Your task to perform on an android device: check data usage Image 0: 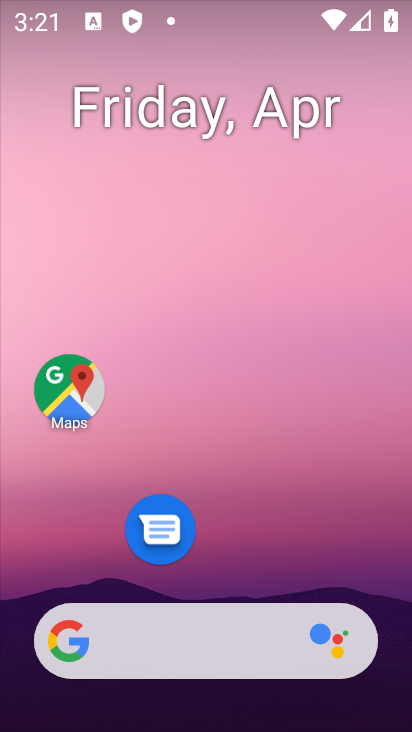
Step 0: drag from (301, 517) to (325, 257)
Your task to perform on an android device: check data usage Image 1: 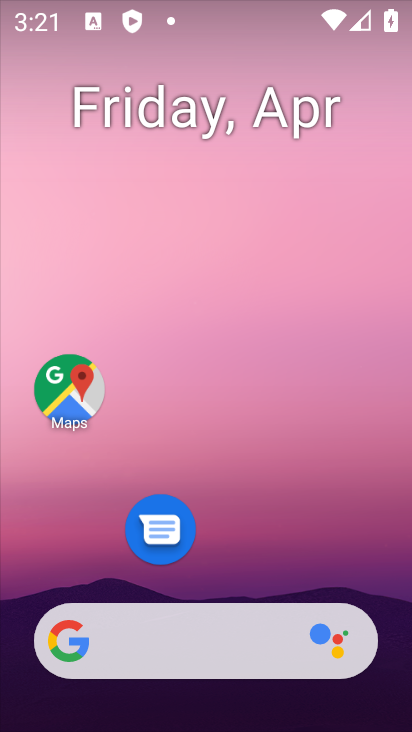
Step 1: drag from (265, 578) to (369, 69)
Your task to perform on an android device: check data usage Image 2: 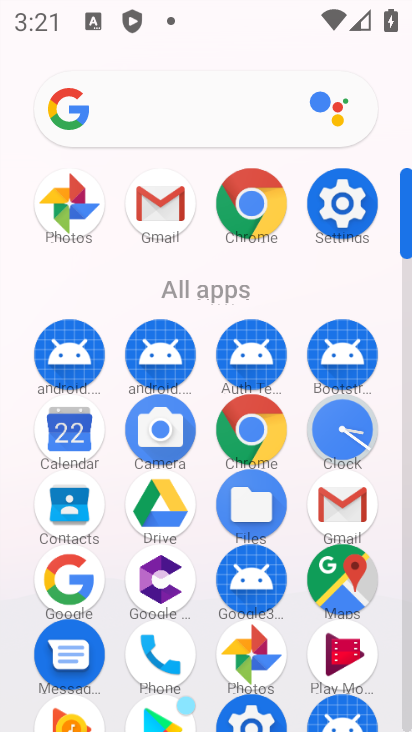
Step 2: click (345, 222)
Your task to perform on an android device: check data usage Image 3: 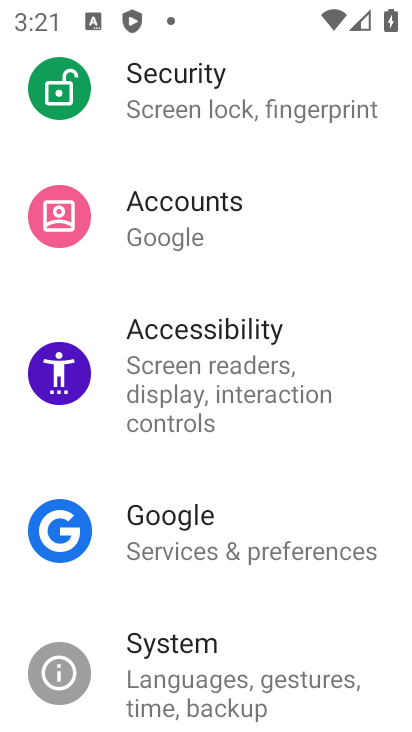
Step 3: drag from (264, 293) to (188, 670)
Your task to perform on an android device: check data usage Image 4: 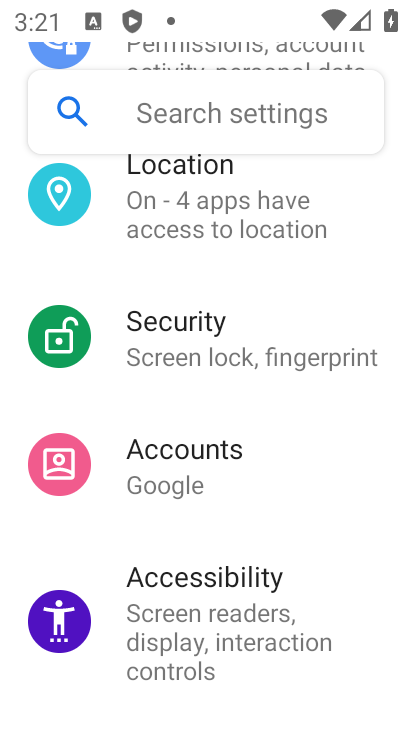
Step 4: drag from (231, 398) to (208, 694)
Your task to perform on an android device: check data usage Image 5: 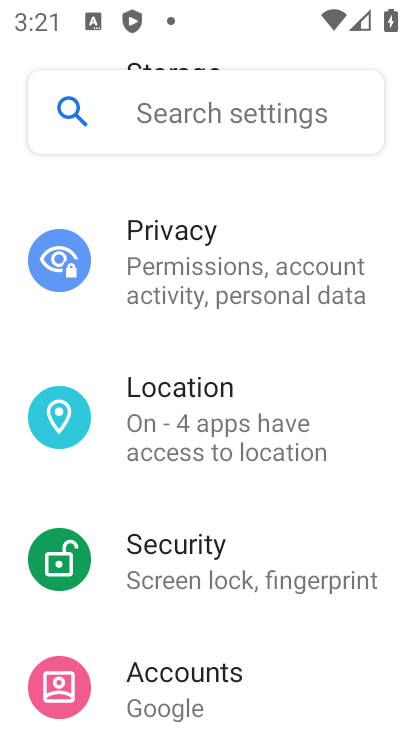
Step 5: drag from (228, 244) to (196, 604)
Your task to perform on an android device: check data usage Image 6: 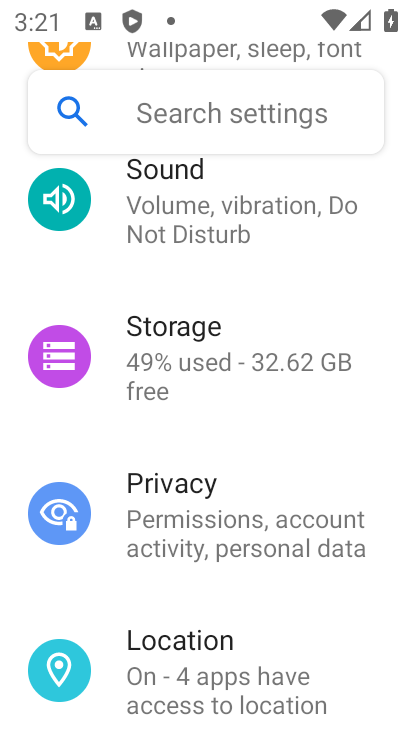
Step 6: drag from (248, 304) to (174, 666)
Your task to perform on an android device: check data usage Image 7: 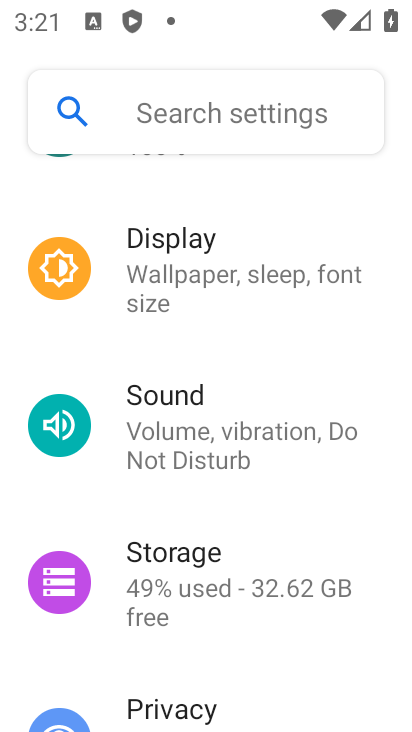
Step 7: drag from (218, 317) to (191, 619)
Your task to perform on an android device: check data usage Image 8: 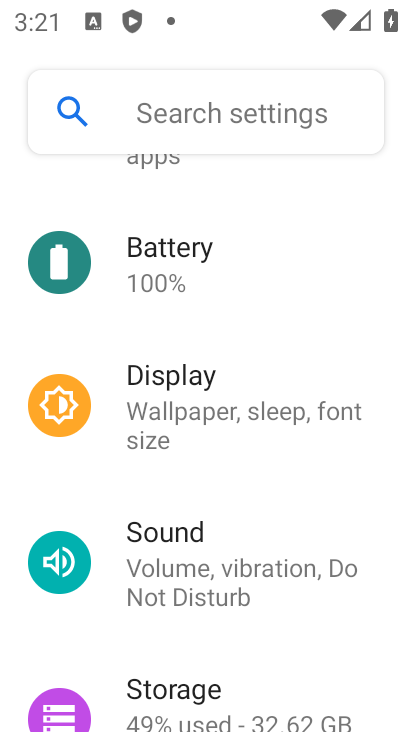
Step 8: drag from (273, 371) to (215, 721)
Your task to perform on an android device: check data usage Image 9: 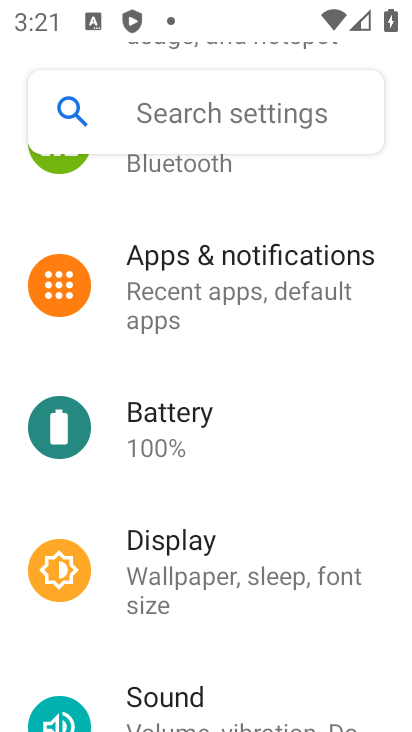
Step 9: drag from (274, 331) to (148, 702)
Your task to perform on an android device: check data usage Image 10: 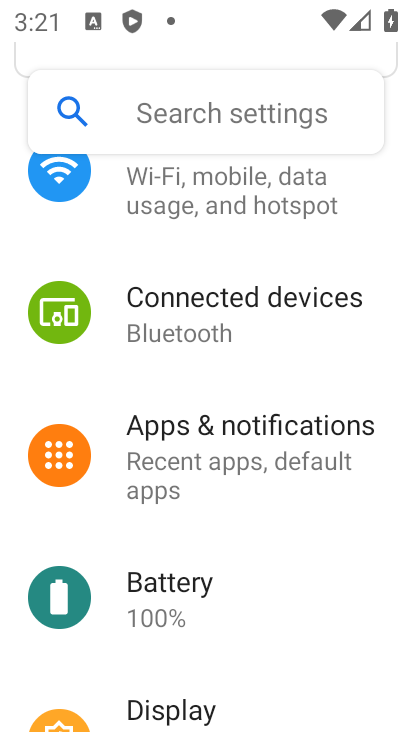
Step 10: drag from (196, 256) to (202, 658)
Your task to perform on an android device: check data usage Image 11: 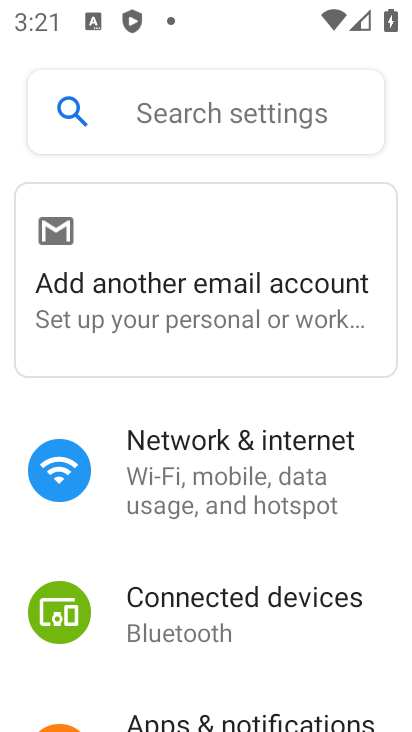
Step 11: click (265, 491)
Your task to perform on an android device: check data usage Image 12: 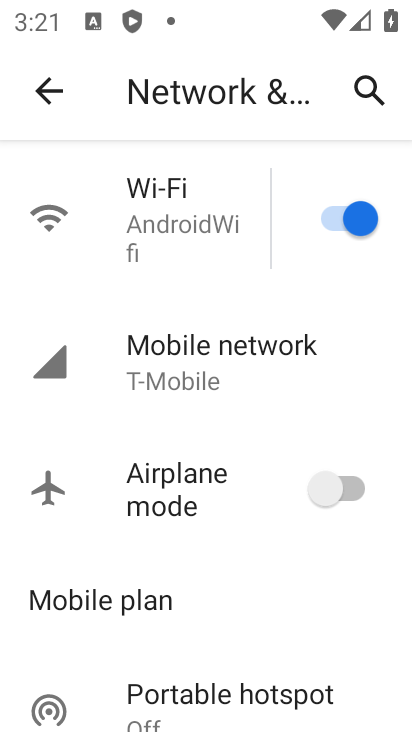
Step 12: click (270, 361)
Your task to perform on an android device: check data usage Image 13: 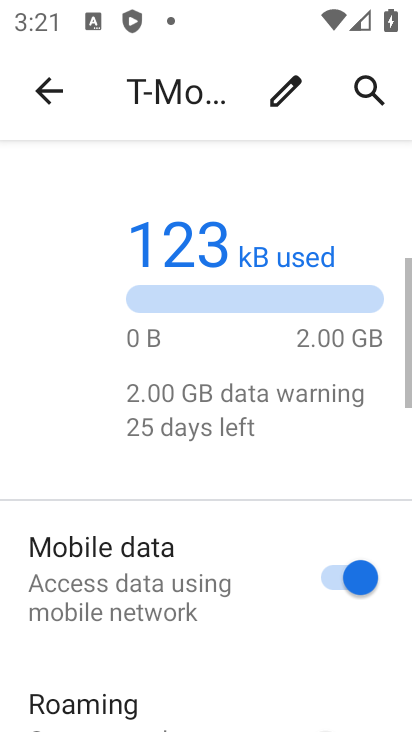
Step 13: drag from (223, 542) to (297, 219)
Your task to perform on an android device: check data usage Image 14: 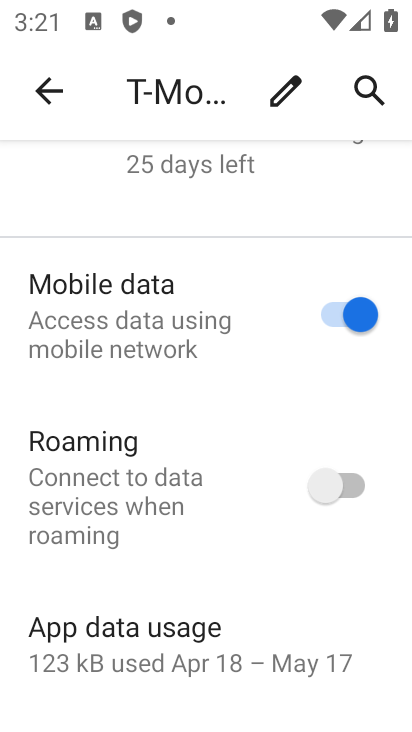
Step 14: drag from (212, 565) to (240, 271)
Your task to perform on an android device: check data usage Image 15: 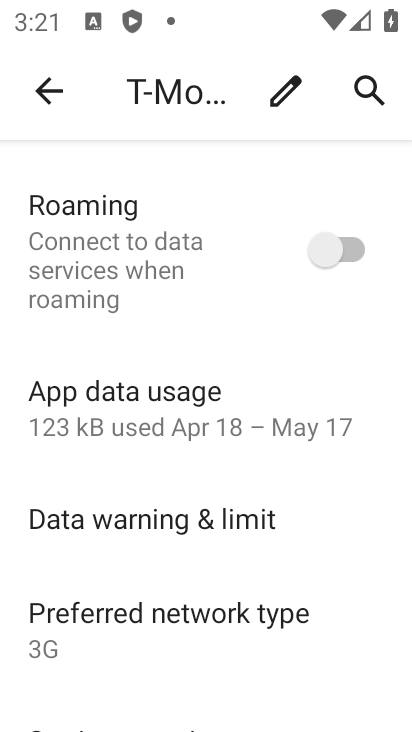
Step 15: click (245, 418)
Your task to perform on an android device: check data usage Image 16: 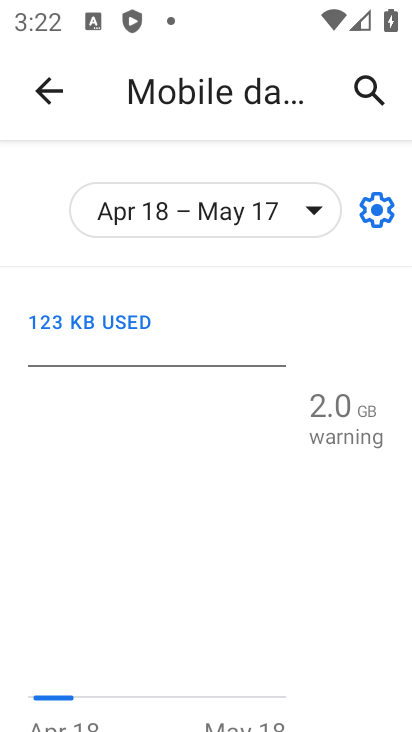
Step 16: task complete